Your task to perform on an android device: change notification settings in the gmail app Image 0: 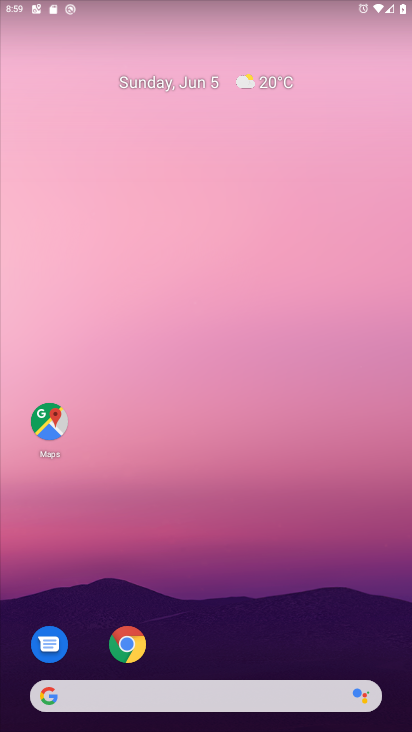
Step 0: drag from (348, 615) to (353, 239)
Your task to perform on an android device: change notification settings in the gmail app Image 1: 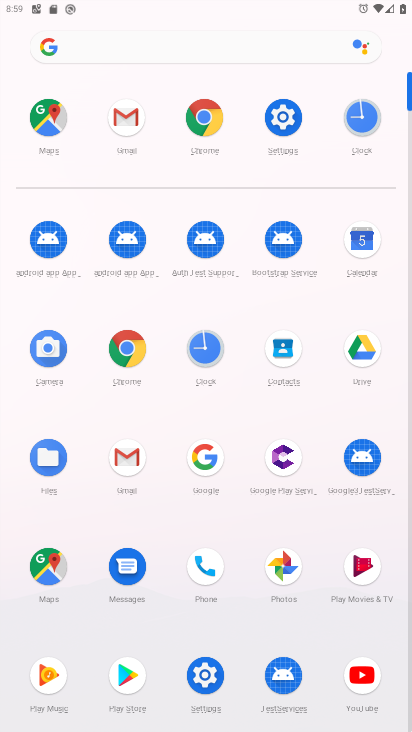
Step 1: click (126, 463)
Your task to perform on an android device: change notification settings in the gmail app Image 2: 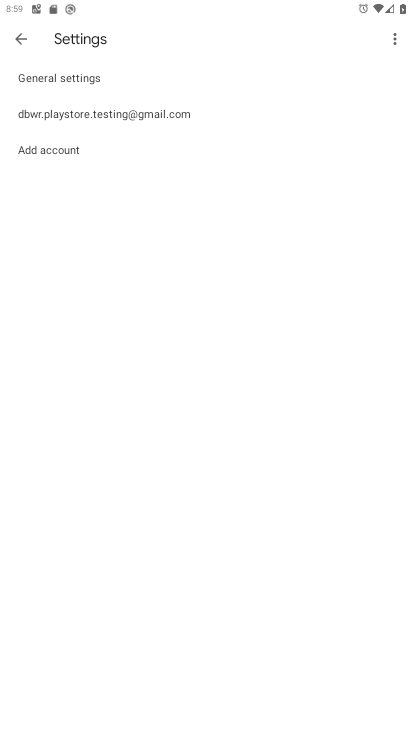
Step 2: click (177, 119)
Your task to perform on an android device: change notification settings in the gmail app Image 3: 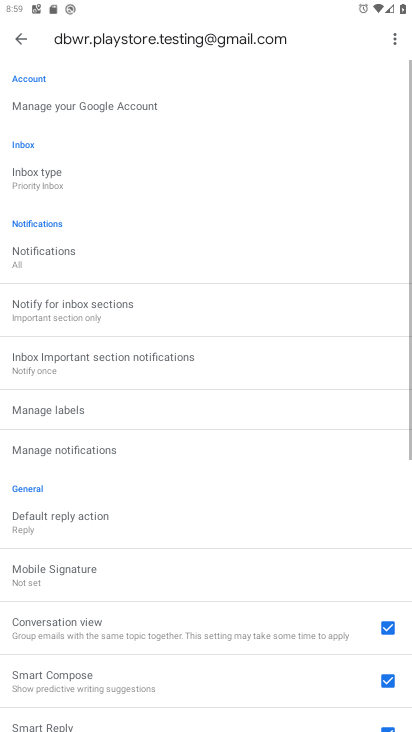
Step 3: drag from (211, 606) to (264, 267)
Your task to perform on an android device: change notification settings in the gmail app Image 4: 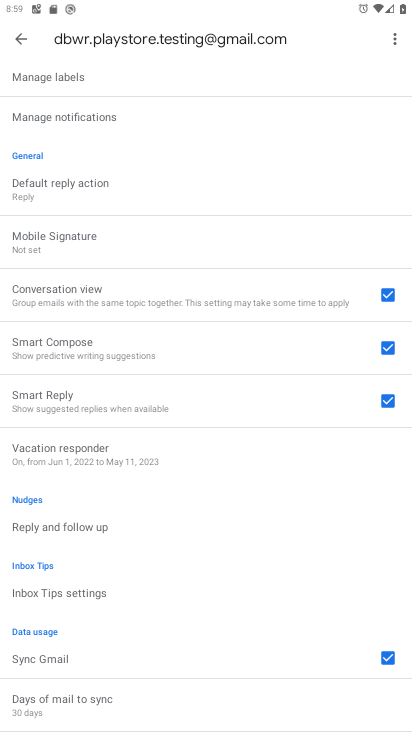
Step 4: drag from (102, 150) to (66, 442)
Your task to perform on an android device: change notification settings in the gmail app Image 5: 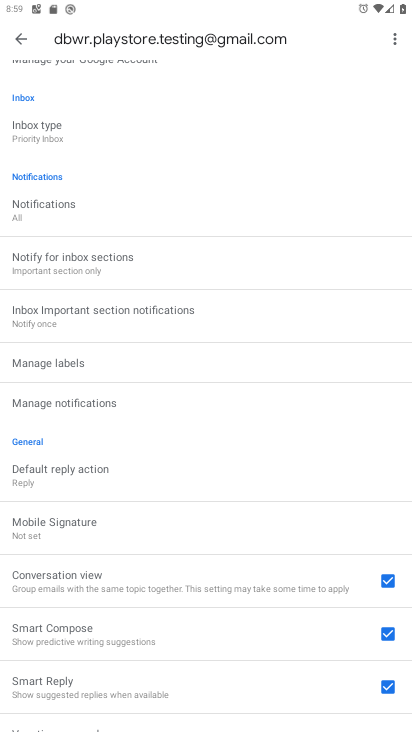
Step 5: click (56, 124)
Your task to perform on an android device: change notification settings in the gmail app Image 6: 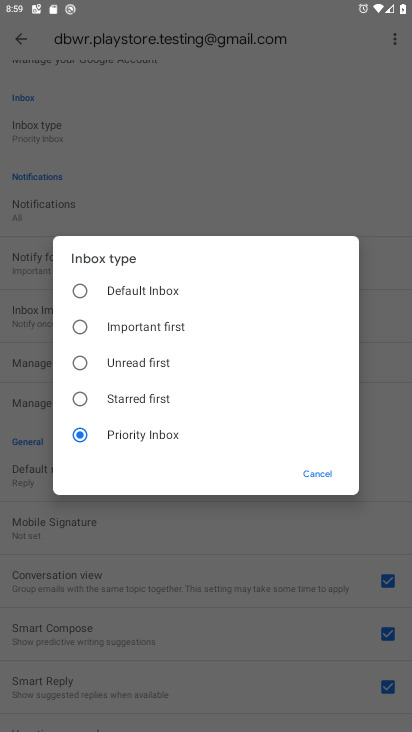
Step 6: click (38, 213)
Your task to perform on an android device: change notification settings in the gmail app Image 7: 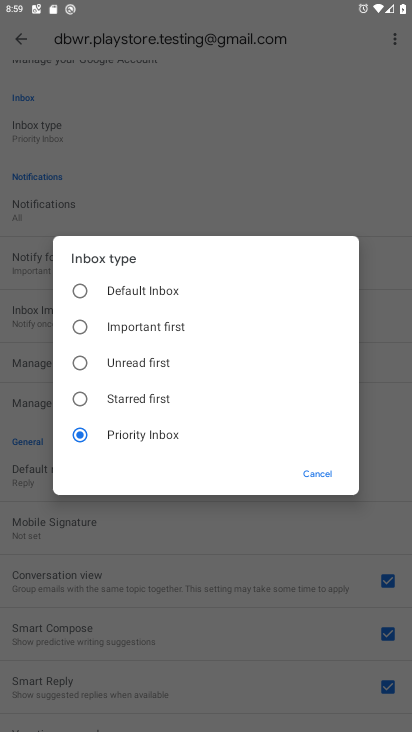
Step 7: click (36, 212)
Your task to perform on an android device: change notification settings in the gmail app Image 8: 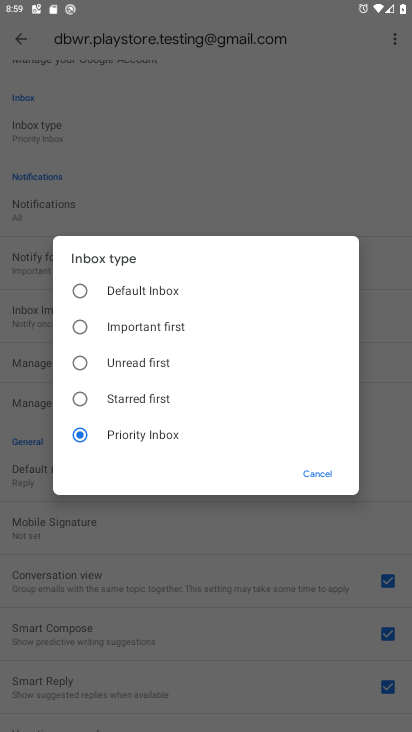
Step 8: click (315, 471)
Your task to perform on an android device: change notification settings in the gmail app Image 9: 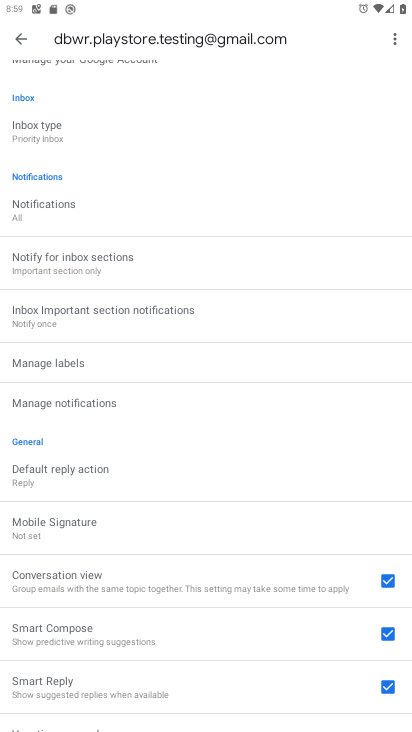
Step 9: click (11, 214)
Your task to perform on an android device: change notification settings in the gmail app Image 10: 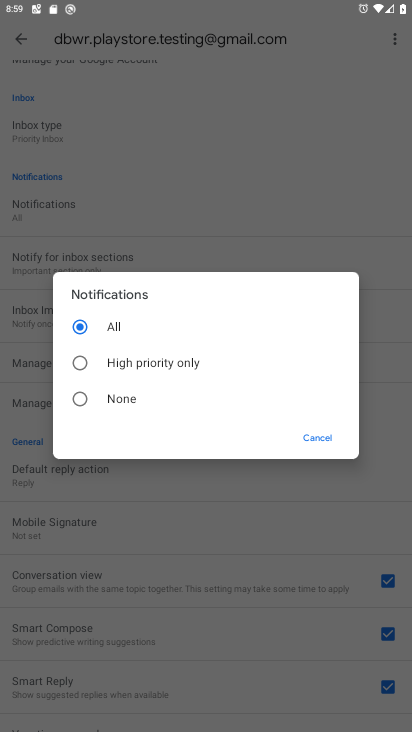
Step 10: click (72, 365)
Your task to perform on an android device: change notification settings in the gmail app Image 11: 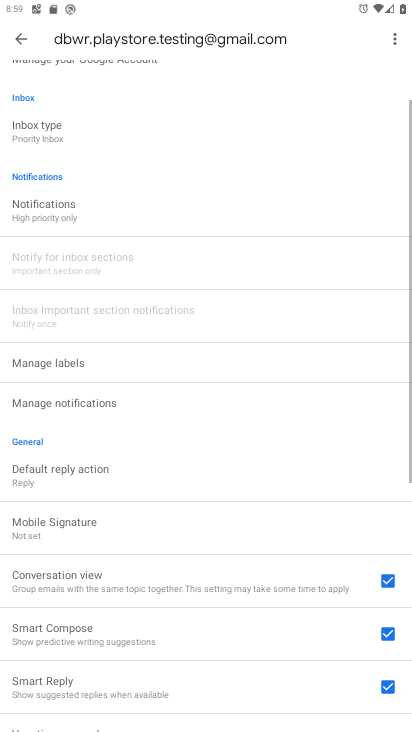
Step 11: task complete